Your task to perform on an android device: find photos in the google photos app Image 0: 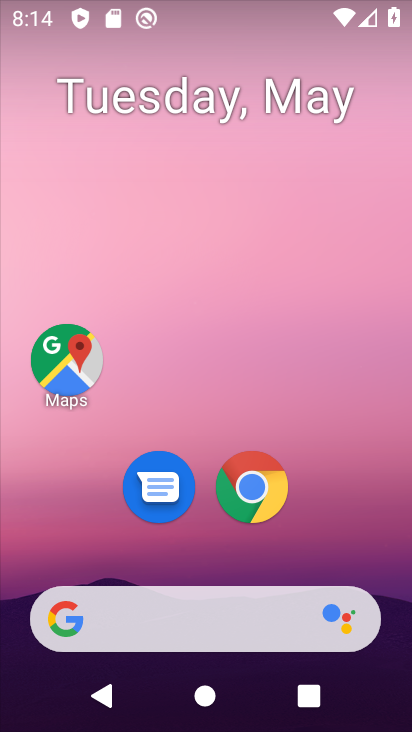
Step 0: drag from (254, 709) to (203, 79)
Your task to perform on an android device: find photos in the google photos app Image 1: 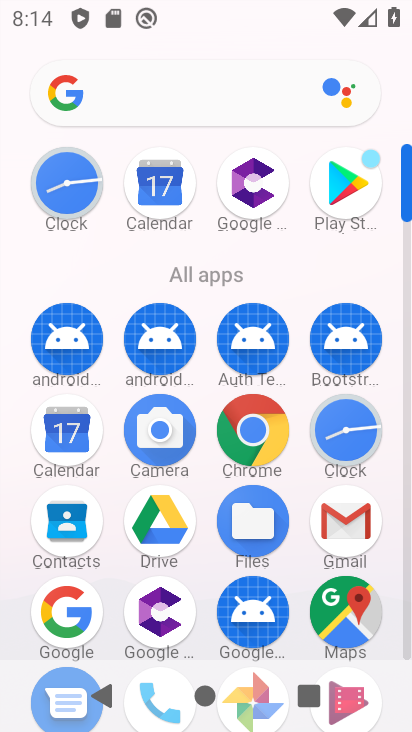
Step 1: drag from (300, 614) to (307, 322)
Your task to perform on an android device: find photos in the google photos app Image 2: 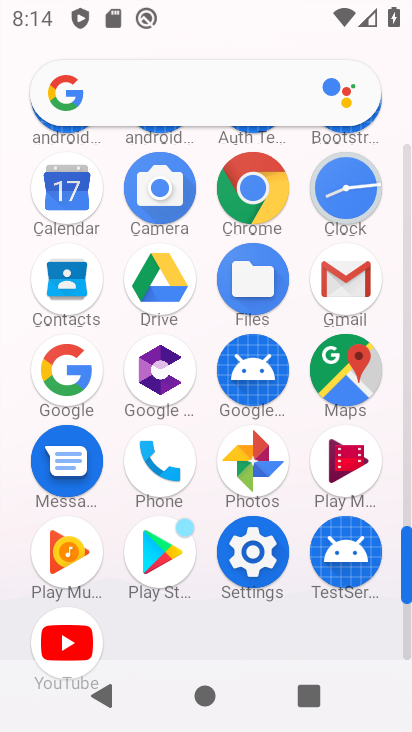
Step 2: click (257, 458)
Your task to perform on an android device: find photos in the google photos app Image 3: 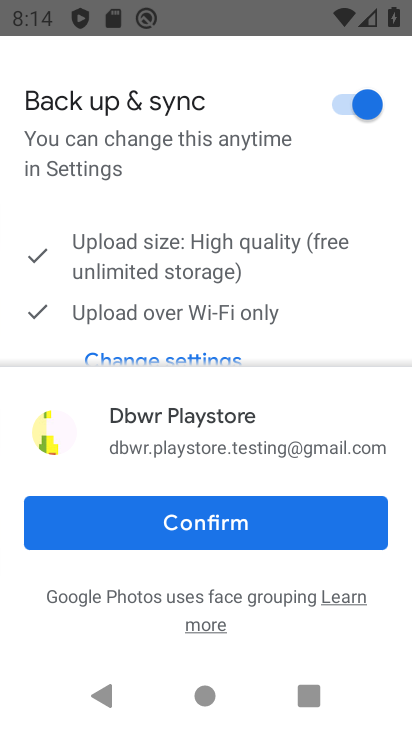
Step 3: click (225, 521)
Your task to perform on an android device: find photos in the google photos app Image 4: 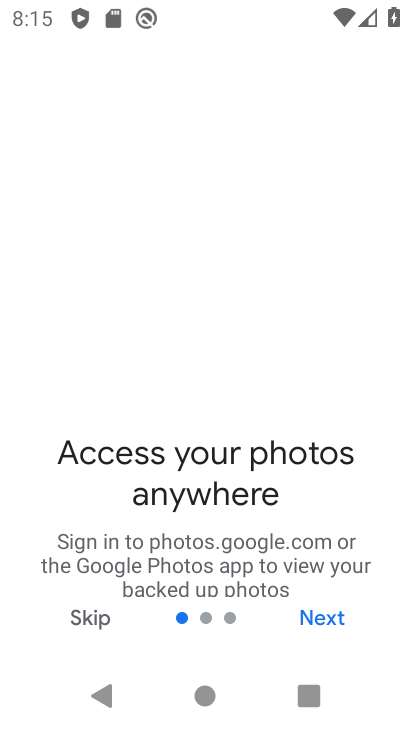
Step 4: click (313, 618)
Your task to perform on an android device: find photos in the google photos app Image 5: 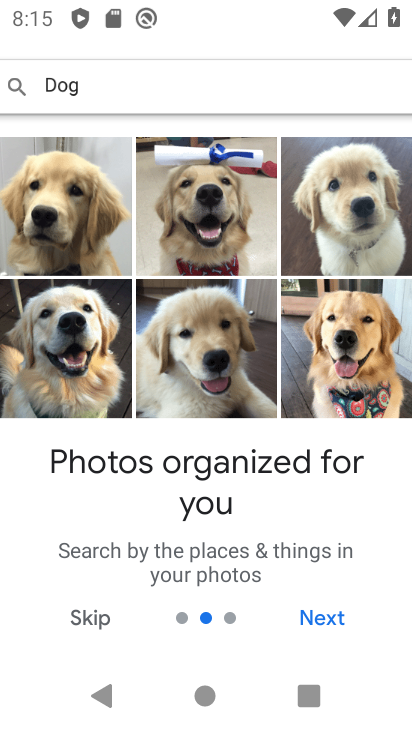
Step 5: click (309, 615)
Your task to perform on an android device: find photos in the google photos app Image 6: 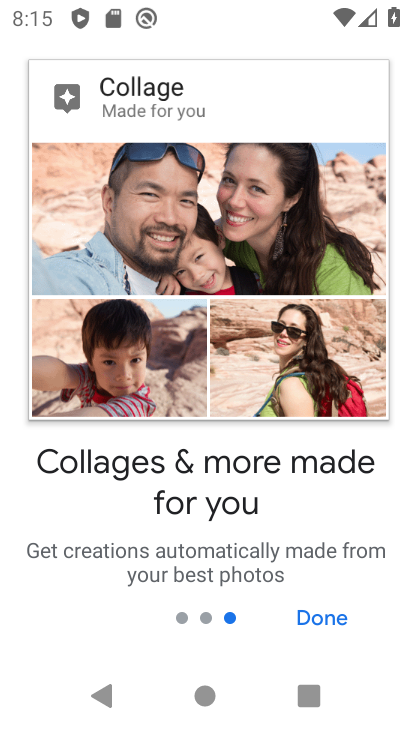
Step 6: click (323, 619)
Your task to perform on an android device: find photos in the google photos app Image 7: 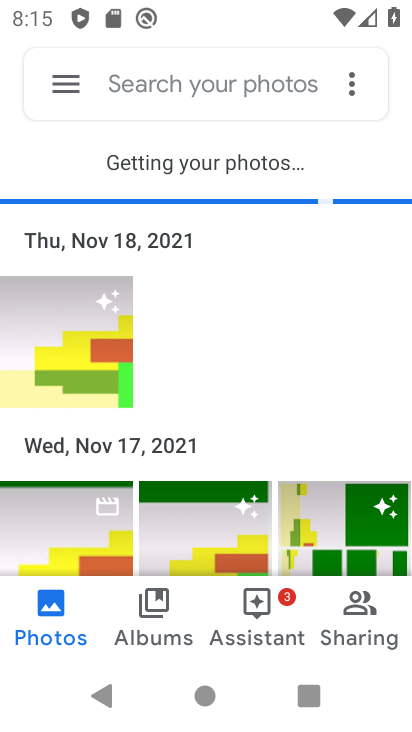
Step 7: click (61, 340)
Your task to perform on an android device: find photos in the google photos app Image 8: 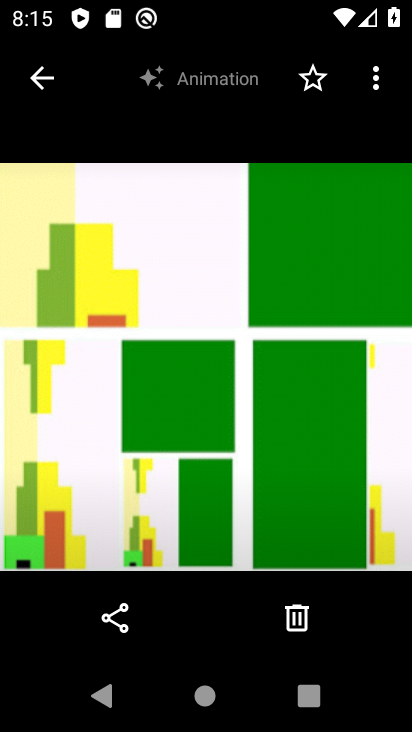
Step 8: task complete